Your task to perform on an android device: star an email in the gmail app Image 0: 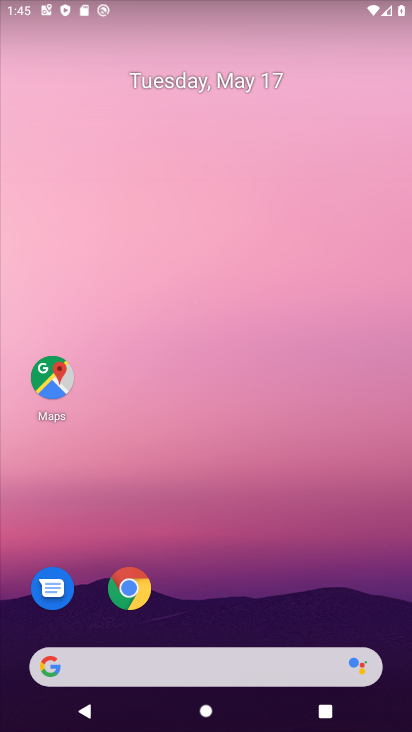
Step 0: drag from (197, 596) to (74, 85)
Your task to perform on an android device: star an email in the gmail app Image 1: 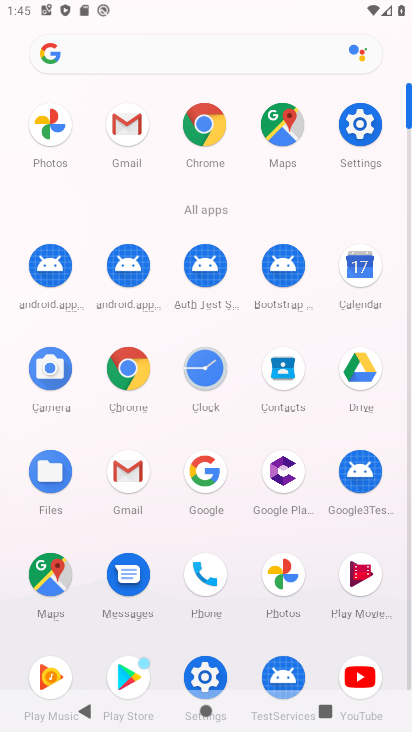
Step 1: click (113, 134)
Your task to perform on an android device: star an email in the gmail app Image 2: 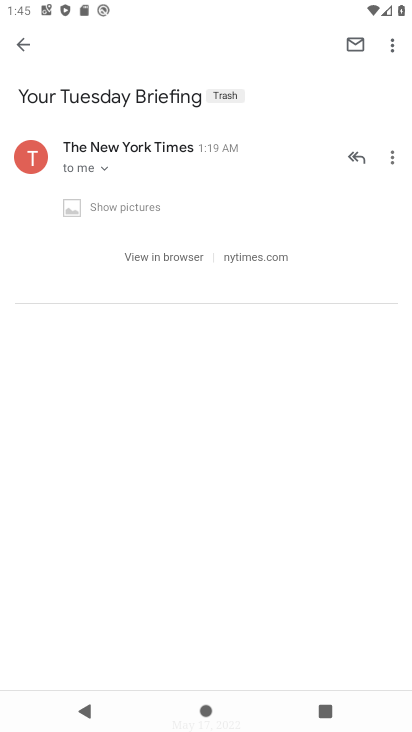
Step 2: click (392, 37)
Your task to perform on an android device: star an email in the gmail app Image 3: 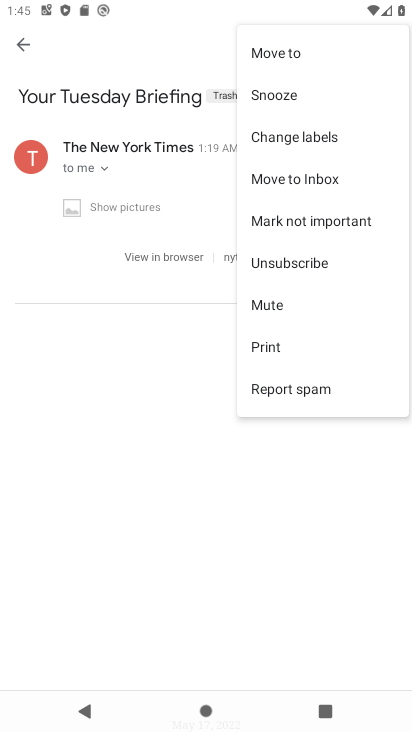
Step 3: click (296, 52)
Your task to perform on an android device: star an email in the gmail app Image 4: 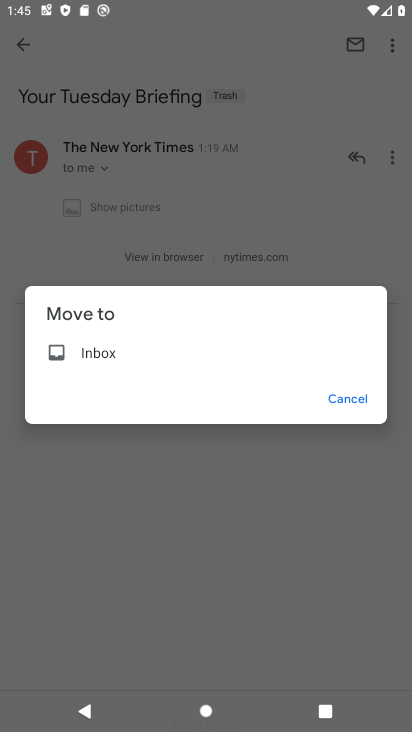
Step 4: click (358, 394)
Your task to perform on an android device: star an email in the gmail app Image 5: 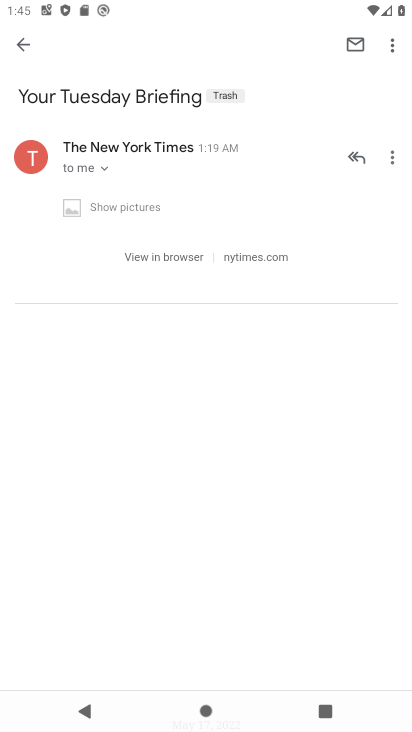
Step 5: click (387, 41)
Your task to perform on an android device: star an email in the gmail app Image 6: 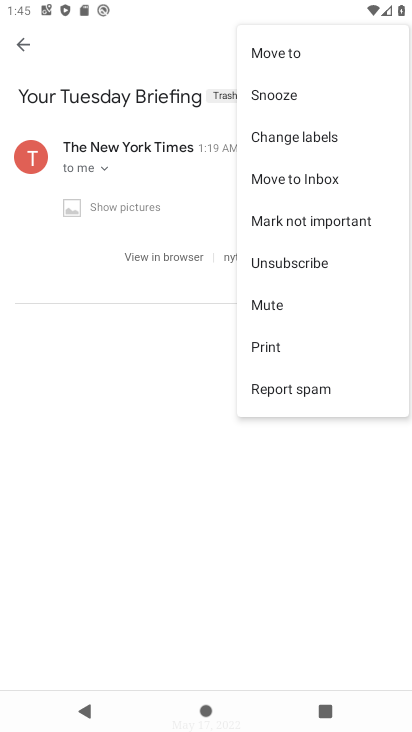
Step 6: click (155, 426)
Your task to perform on an android device: star an email in the gmail app Image 7: 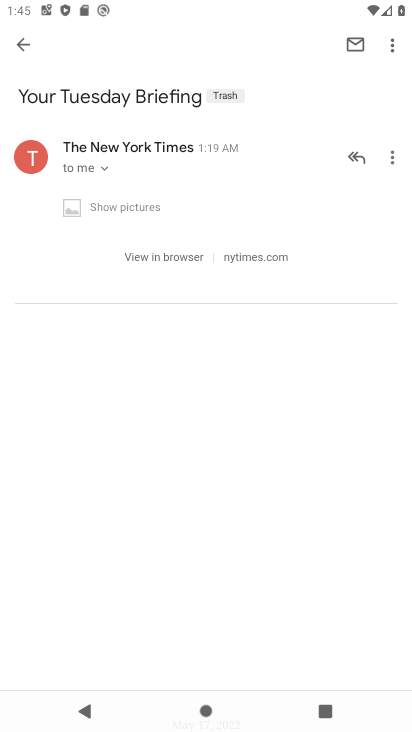
Step 7: task complete